Your task to perform on an android device: turn notification dots off Image 0: 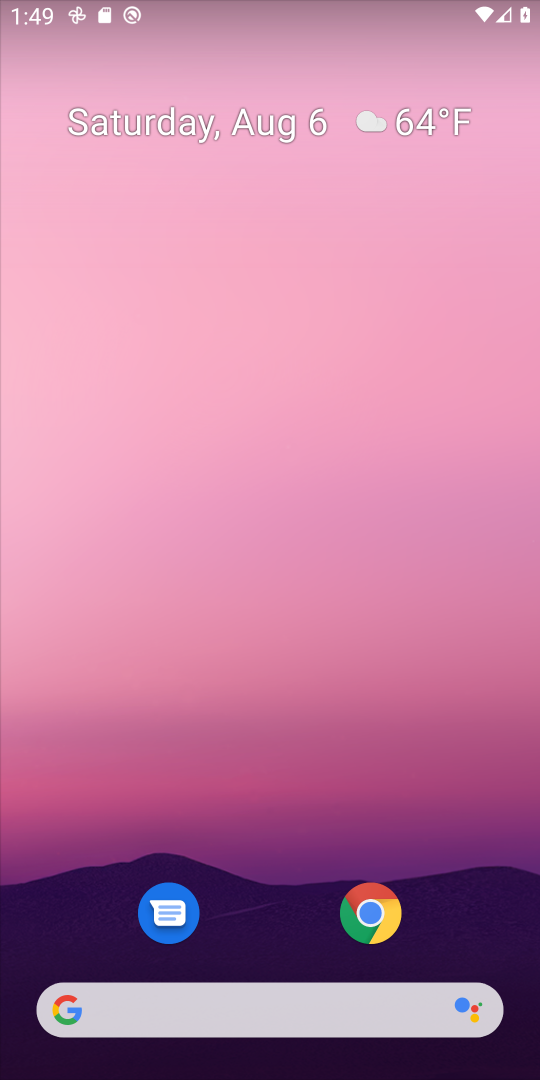
Step 0: press home button
Your task to perform on an android device: turn notification dots off Image 1: 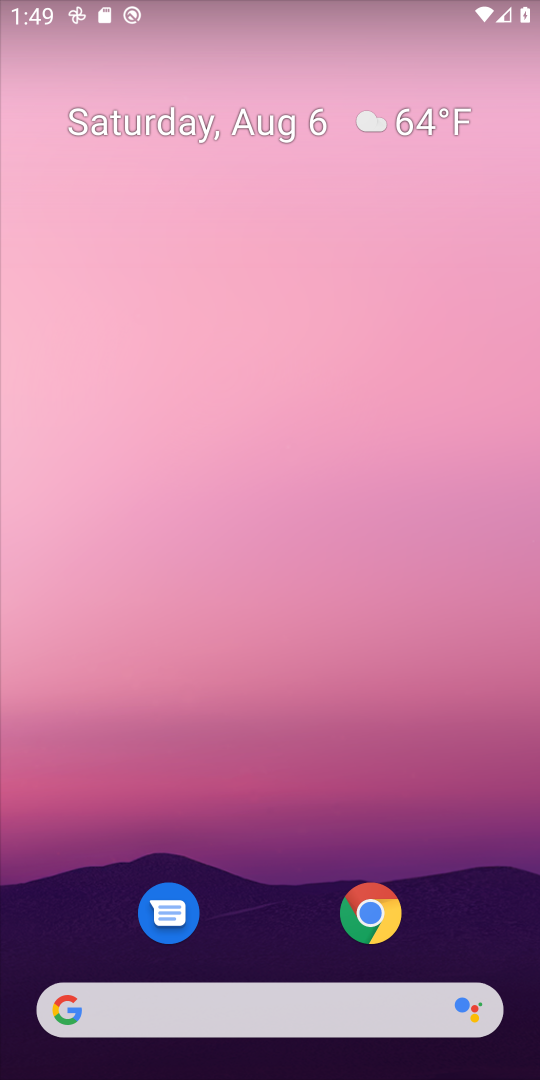
Step 1: drag from (451, 940) to (457, 342)
Your task to perform on an android device: turn notification dots off Image 2: 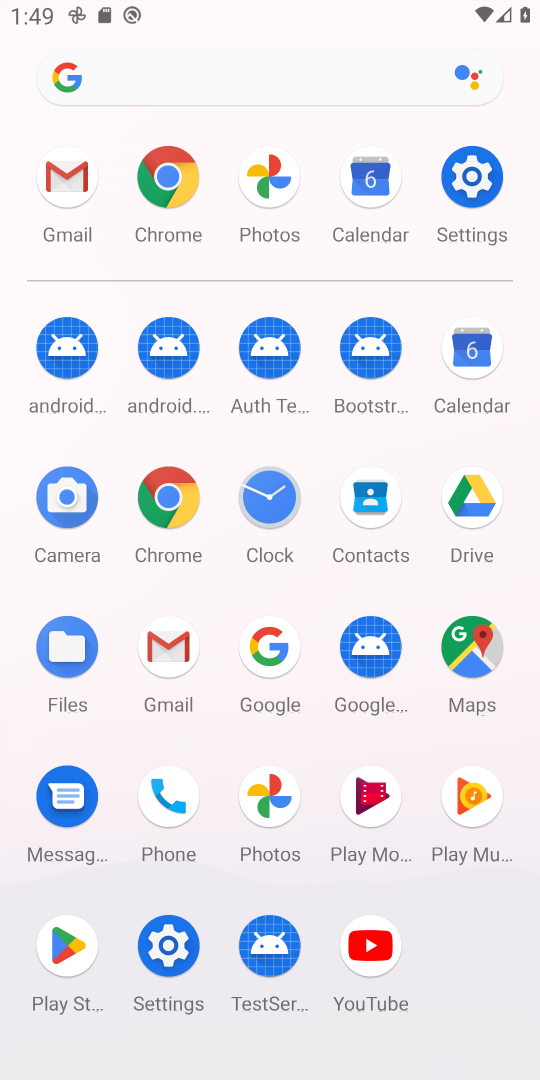
Step 2: click (465, 176)
Your task to perform on an android device: turn notification dots off Image 3: 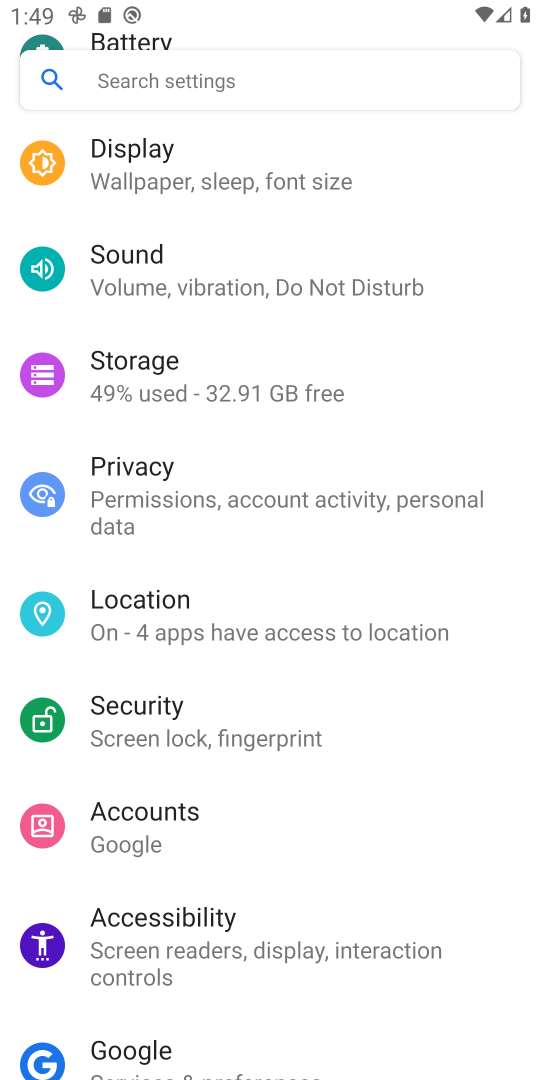
Step 3: drag from (463, 213) to (492, 385)
Your task to perform on an android device: turn notification dots off Image 4: 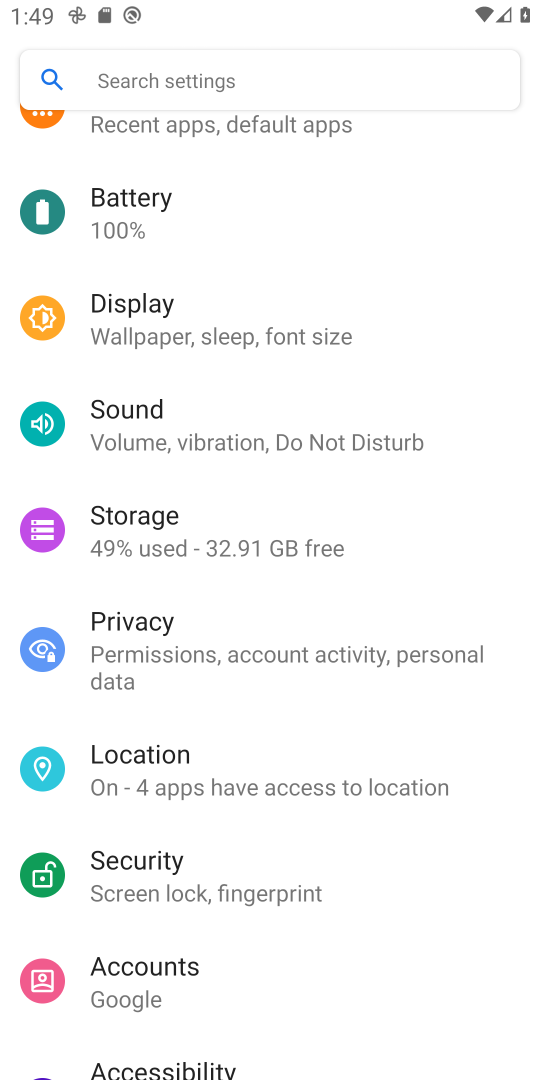
Step 4: drag from (495, 238) to (501, 402)
Your task to perform on an android device: turn notification dots off Image 5: 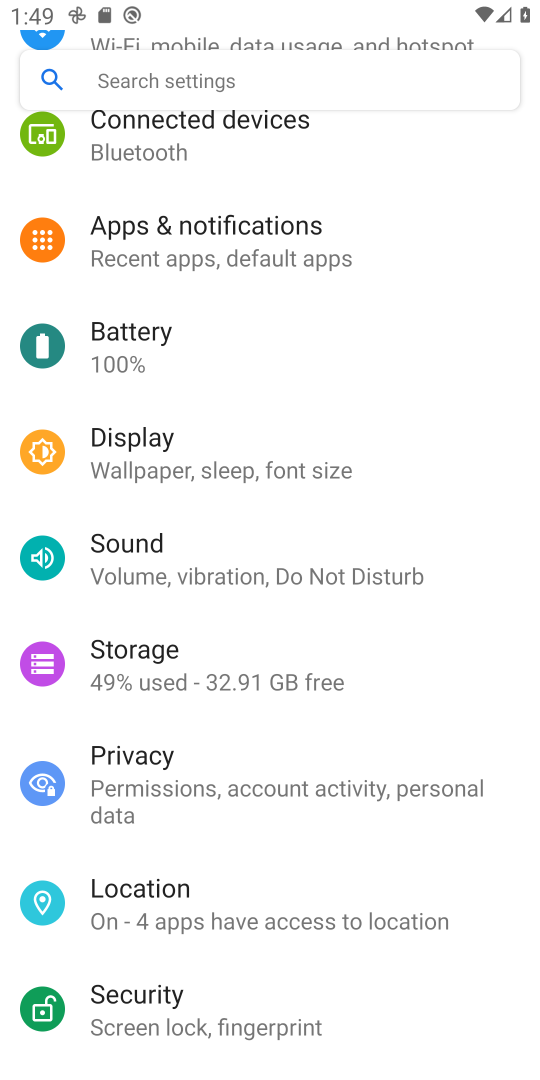
Step 5: drag from (481, 201) to (509, 566)
Your task to perform on an android device: turn notification dots off Image 6: 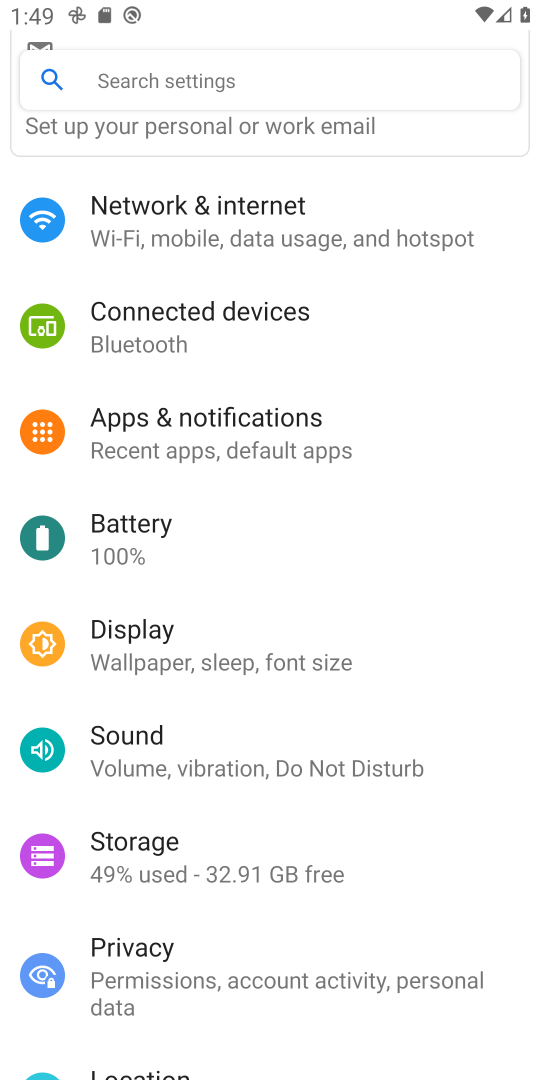
Step 6: drag from (467, 252) to (473, 504)
Your task to perform on an android device: turn notification dots off Image 7: 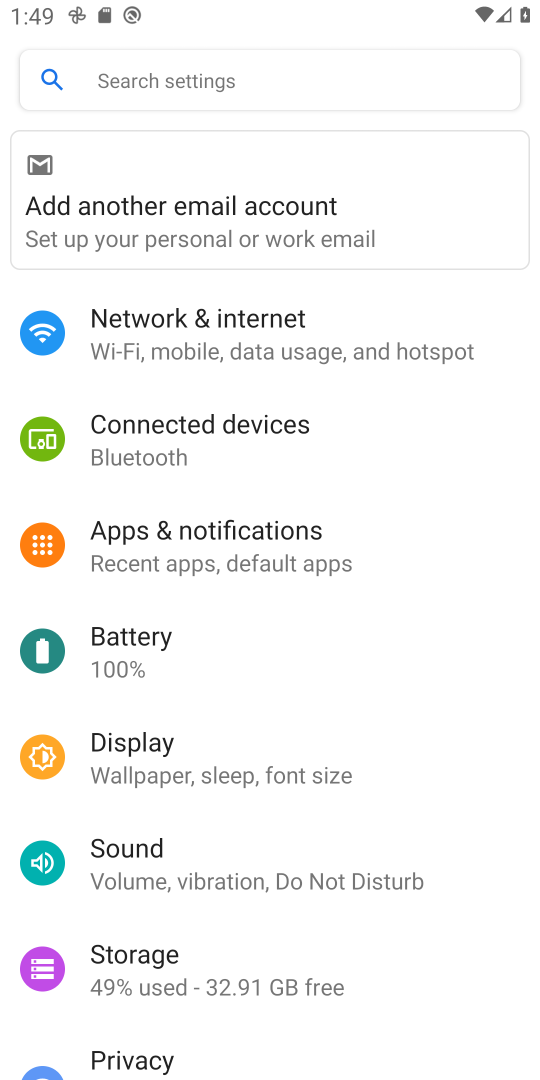
Step 7: drag from (477, 640) to (474, 525)
Your task to perform on an android device: turn notification dots off Image 8: 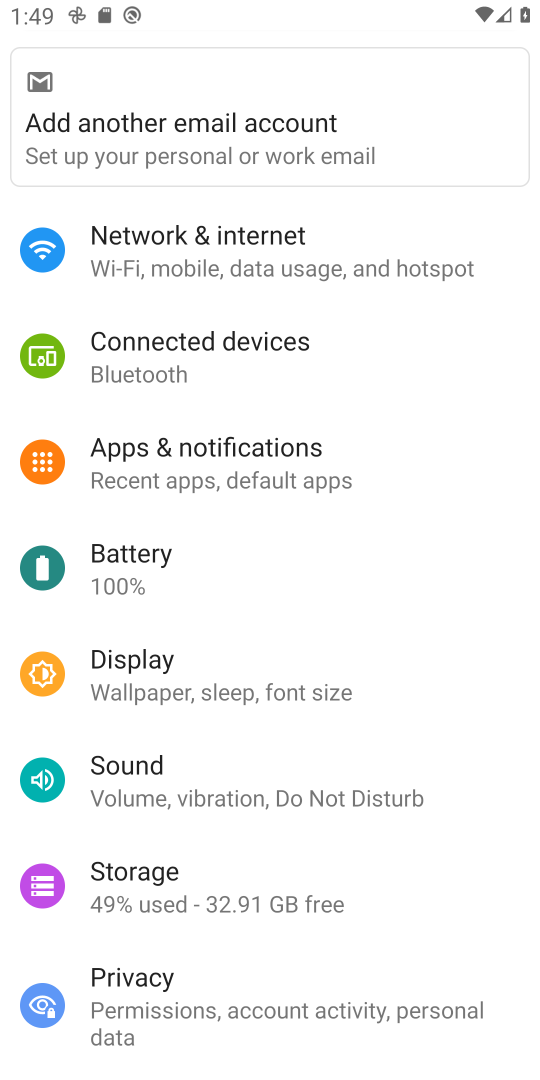
Step 8: drag from (439, 687) to (454, 534)
Your task to perform on an android device: turn notification dots off Image 9: 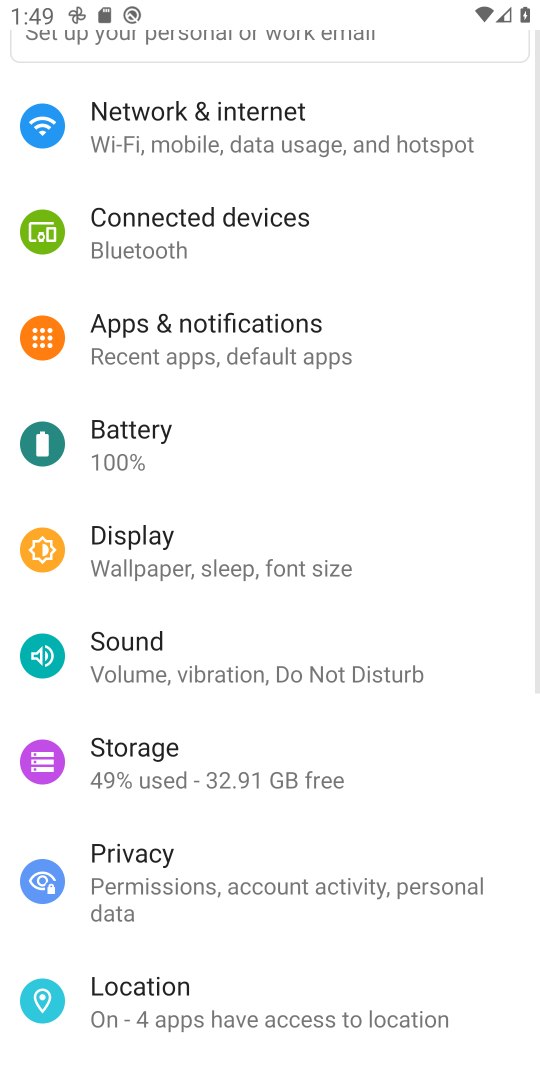
Step 9: drag from (442, 717) to (445, 545)
Your task to perform on an android device: turn notification dots off Image 10: 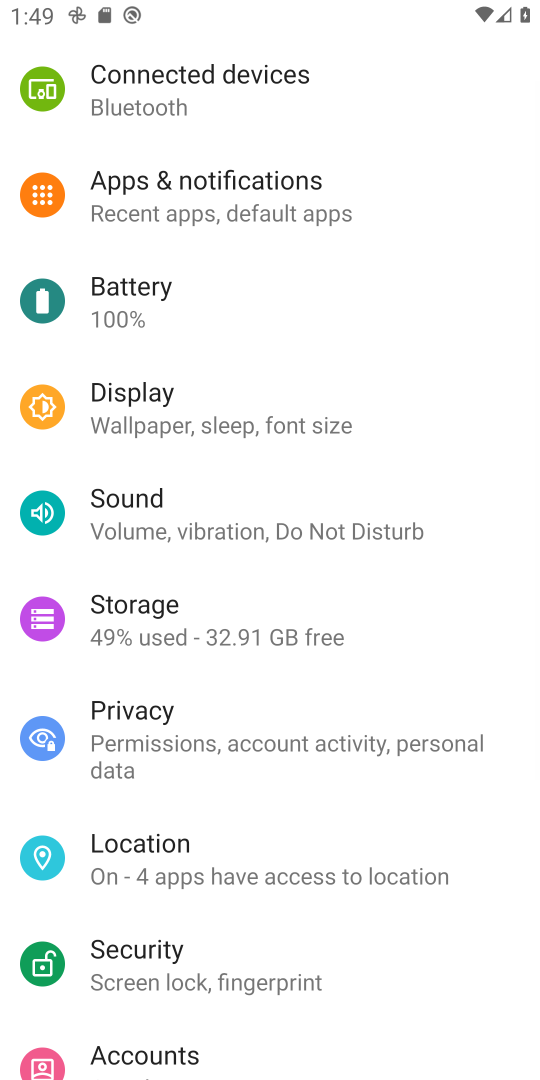
Step 10: drag from (415, 687) to (439, 540)
Your task to perform on an android device: turn notification dots off Image 11: 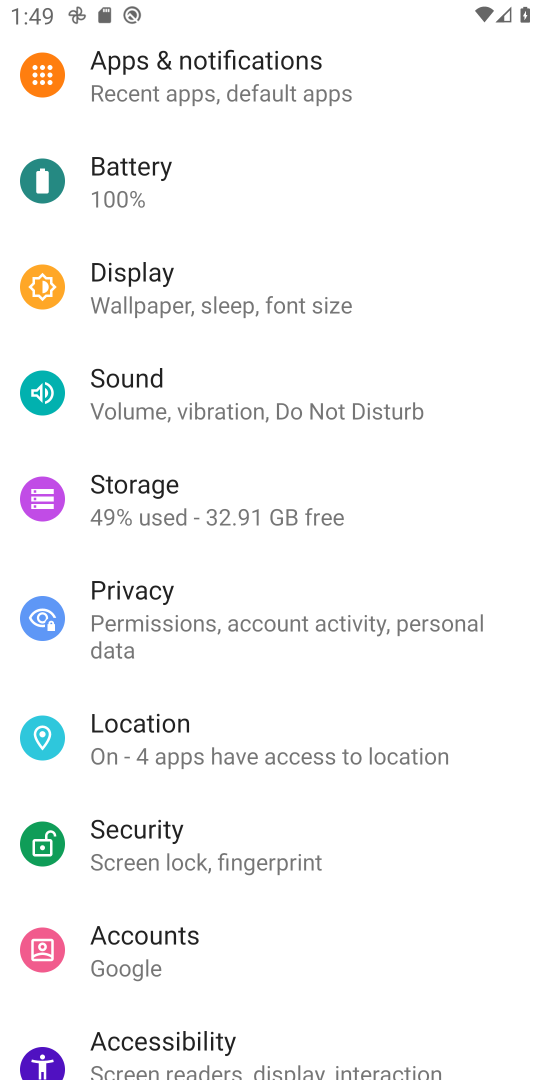
Step 11: drag from (431, 696) to (439, 556)
Your task to perform on an android device: turn notification dots off Image 12: 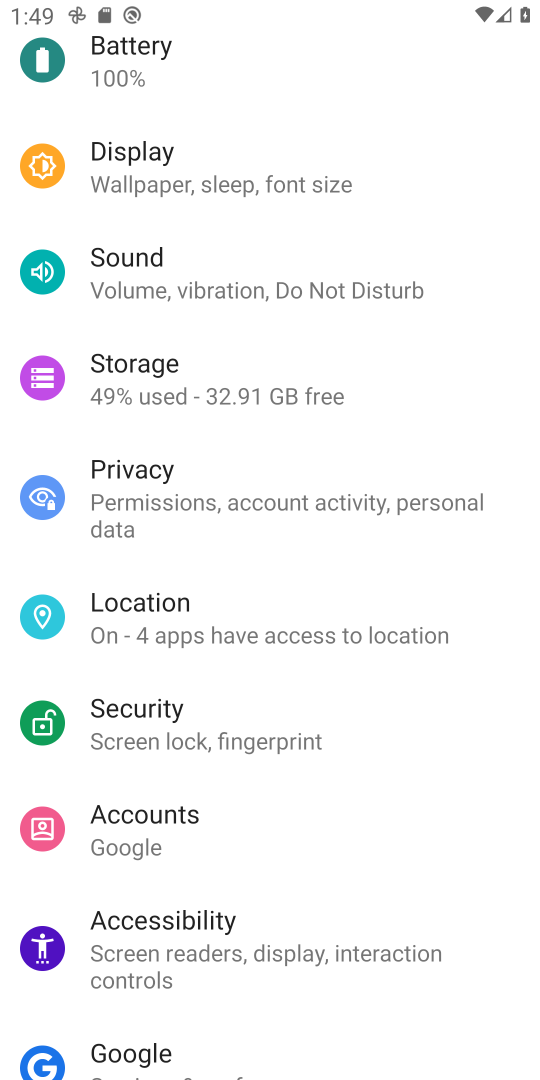
Step 12: drag from (414, 771) to (423, 599)
Your task to perform on an android device: turn notification dots off Image 13: 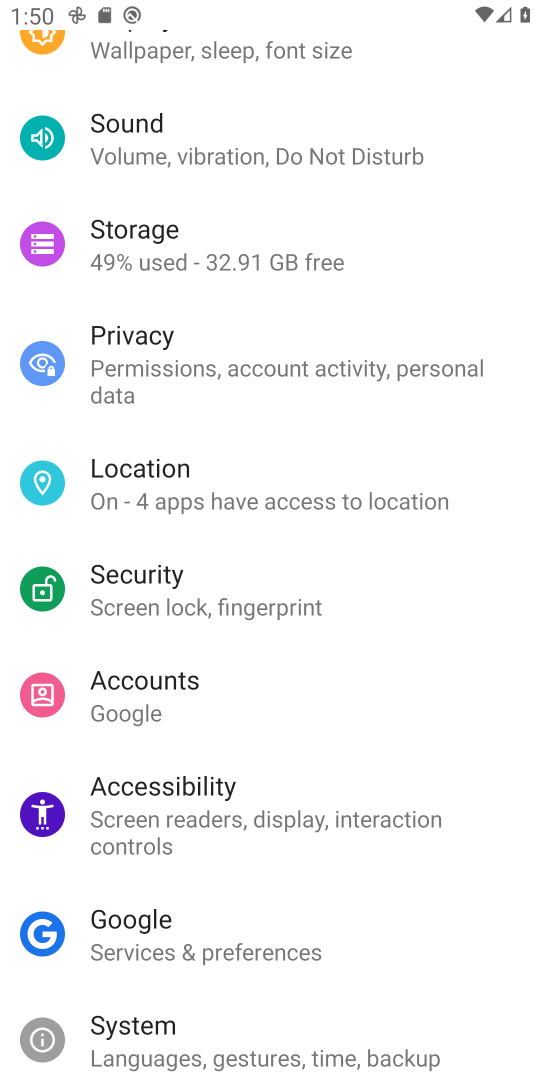
Step 13: drag from (442, 268) to (467, 477)
Your task to perform on an android device: turn notification dots off Image 14: 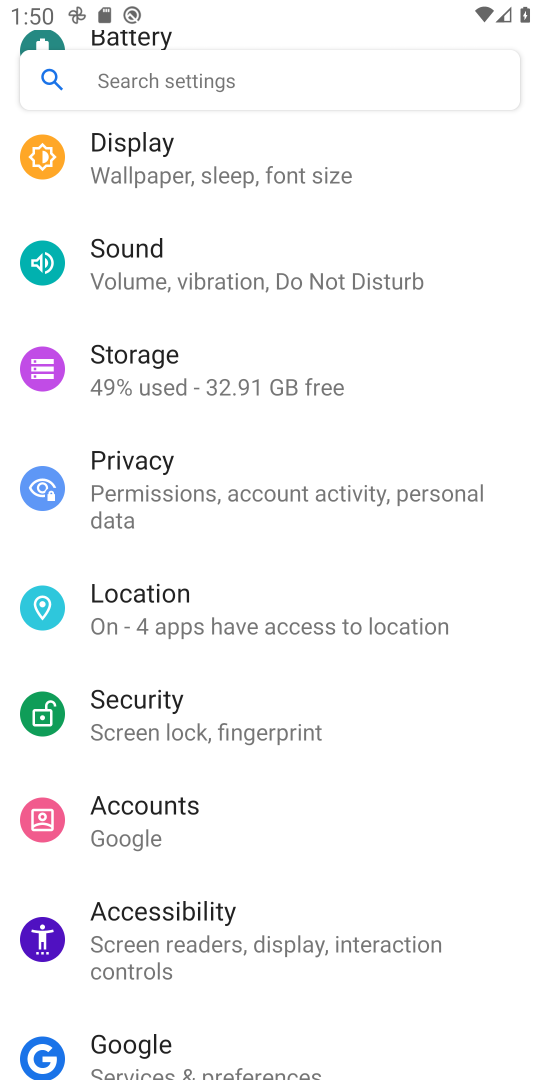
Step 14: drag from (475, 234) to (463, 466)
Your task to perform on an android device: turn notification dots off Image 15: 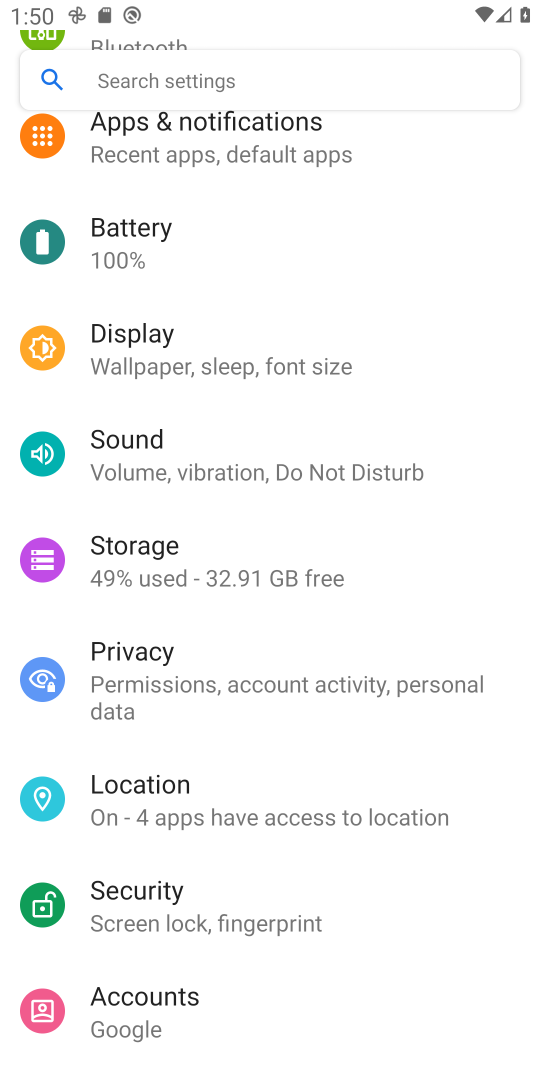
Step 15: drag from (436, 232) to (461, 457)
Your task to perform on an android device: turn notification dots off Image 16: 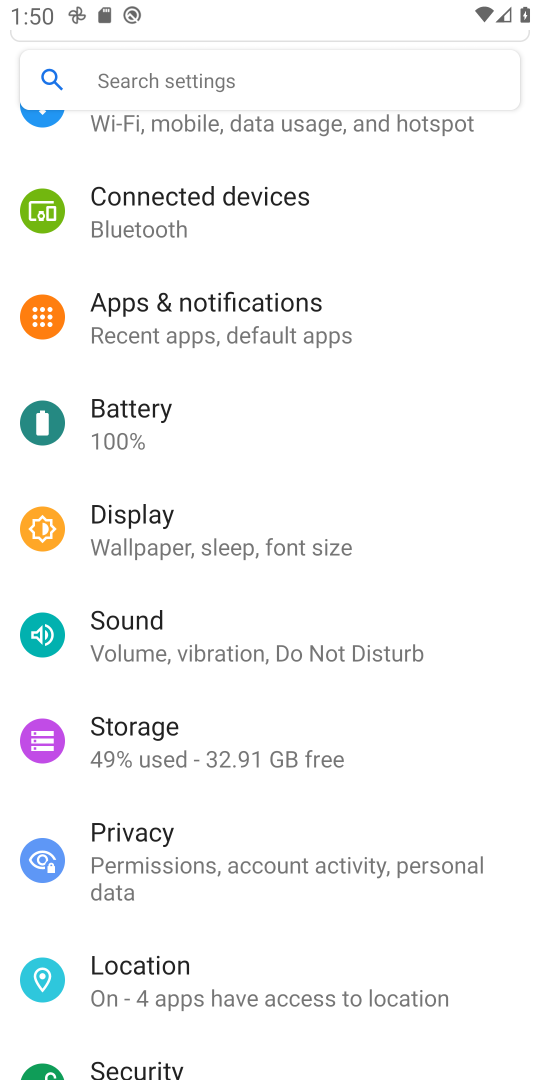
Step 16: drag from (440, 202) to (441, 493)
Your task to perform on an android device: turn notification dots off Image 17: 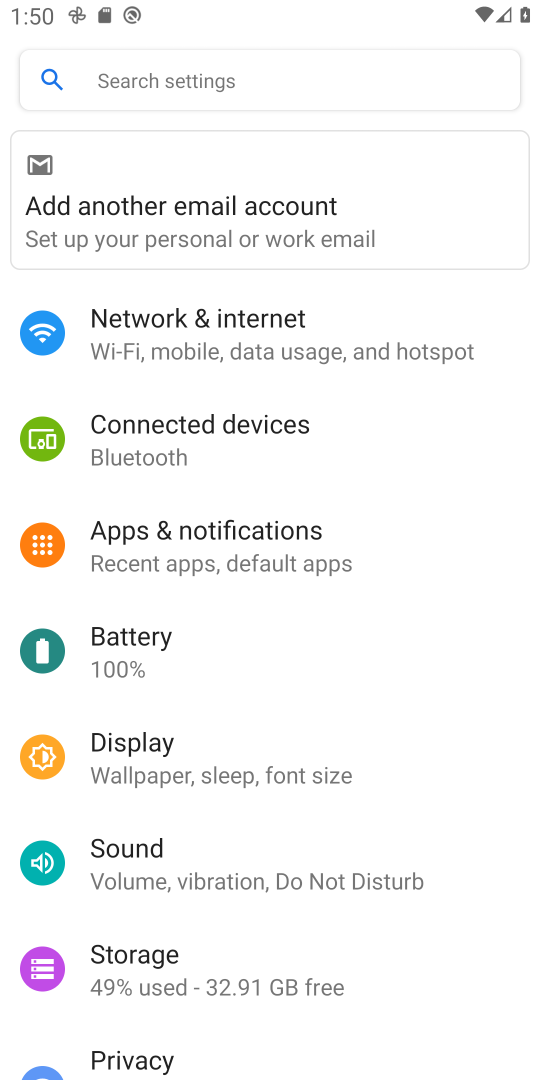
Step 17: click (378, 543)
Your task to perform on an android device: turn notification dots off Image 18: 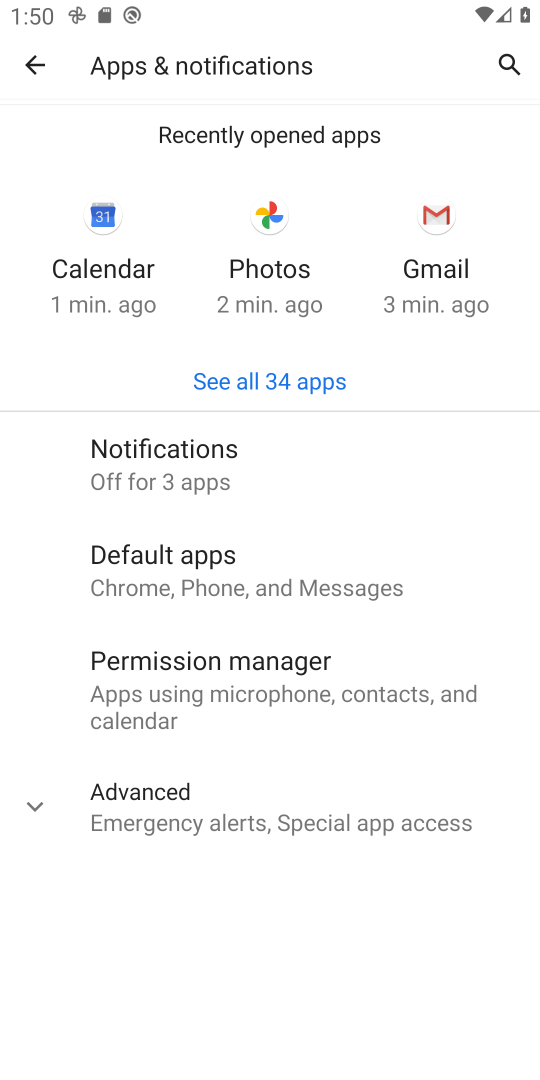
Step 18: click (240, 466)
Your task to perform on an android device: turn notification dots off Image 19: 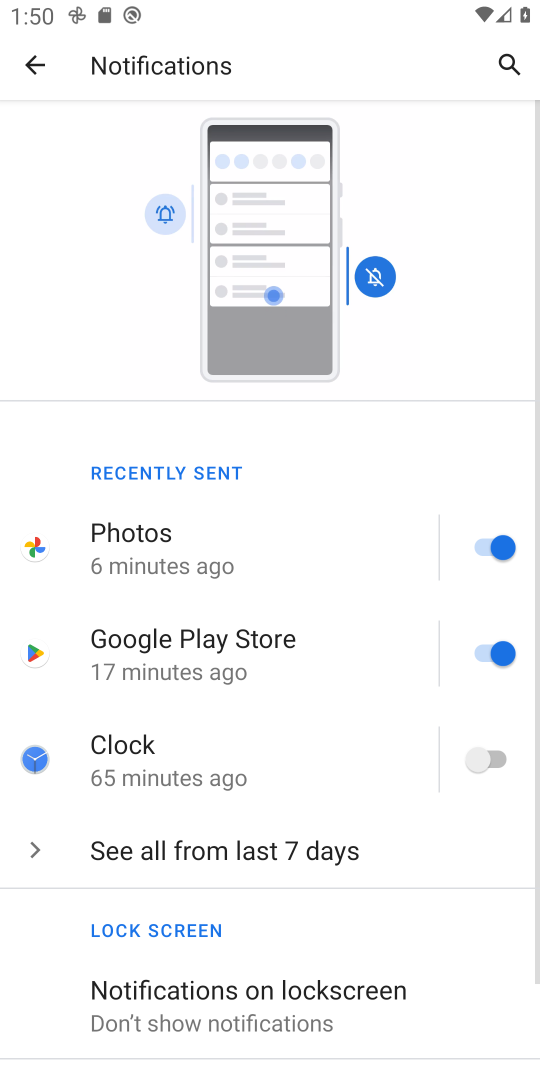
Step 19: drag from (356, 638) to (379, 480)
Your task to perform on an android device: turn notification dots off Image 20: 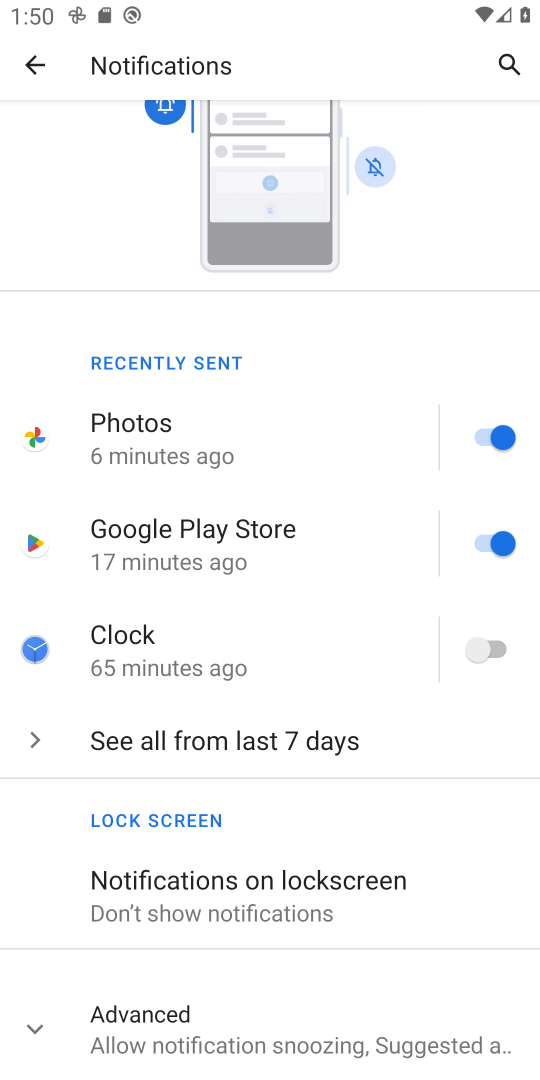
Step 20: drag from (358, 695) to (369, 536)
Your task to perform on an android device: turn notification dots off Image 21: 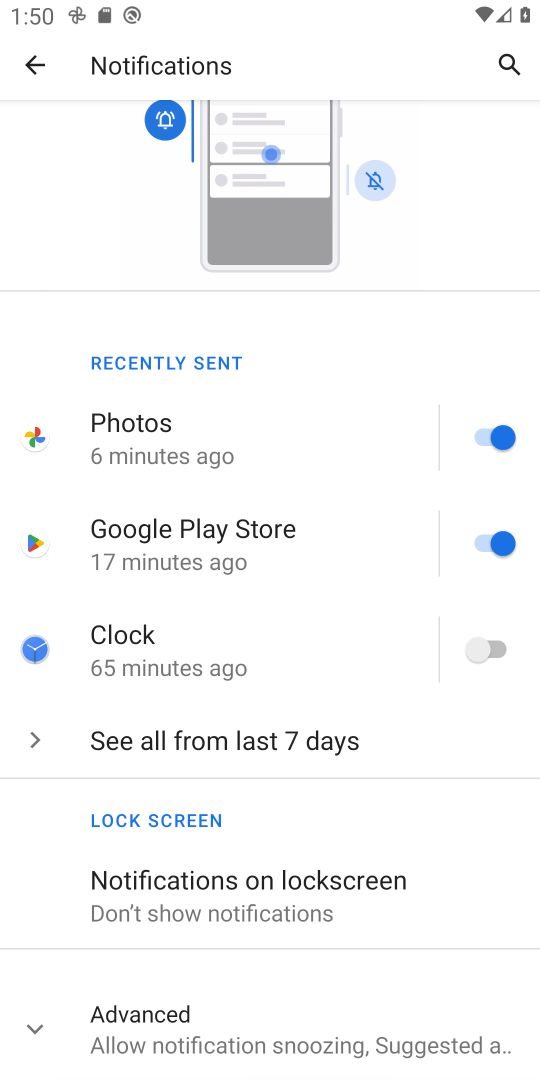
Step 21: click (406, 1034)
Your task to perform on an android device: turn notification dots off Image 22: 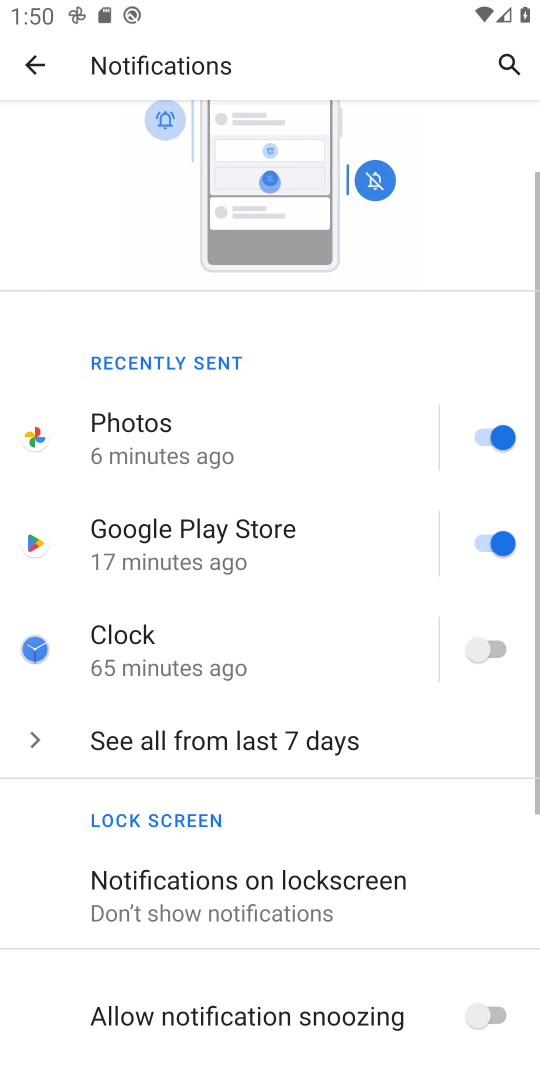
Step 22: drag from (416, 897) to (412, 683)
Your task to perform on an android device: turn notification dots off Image 23: 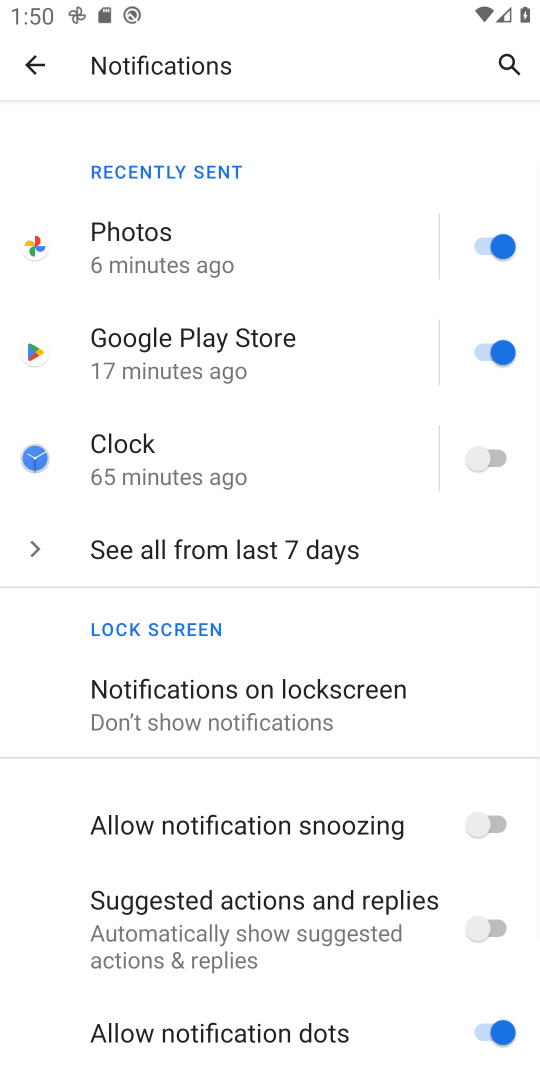
Step 23: drag from (350, 904) to (354, 665)
Your task to perform on an android device: turn notification dots off Image 24: 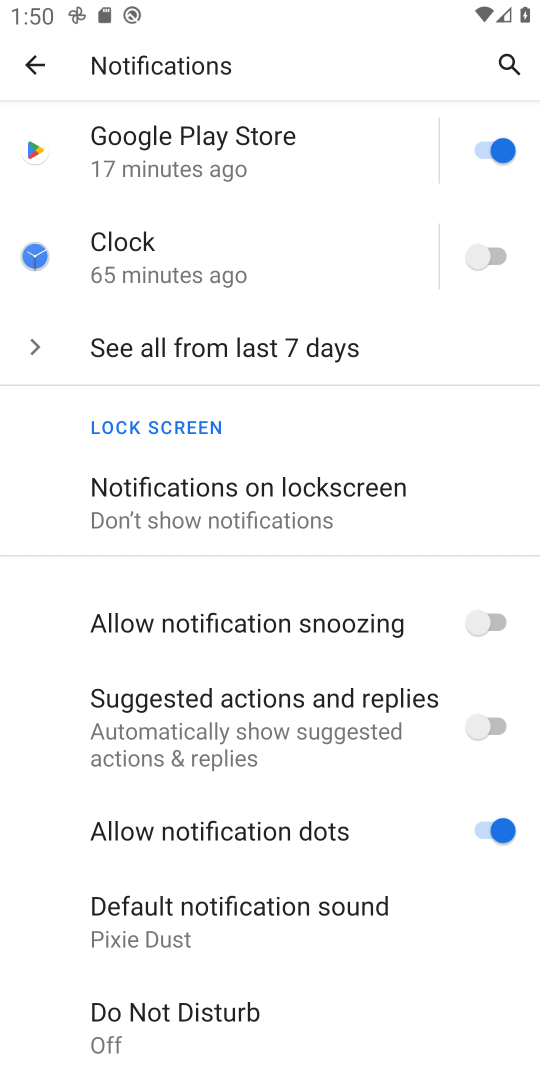
Step 24: drag from (403, 906) to (411, 735)
Your task to perform on an android device: turn notification dots off Image 25: 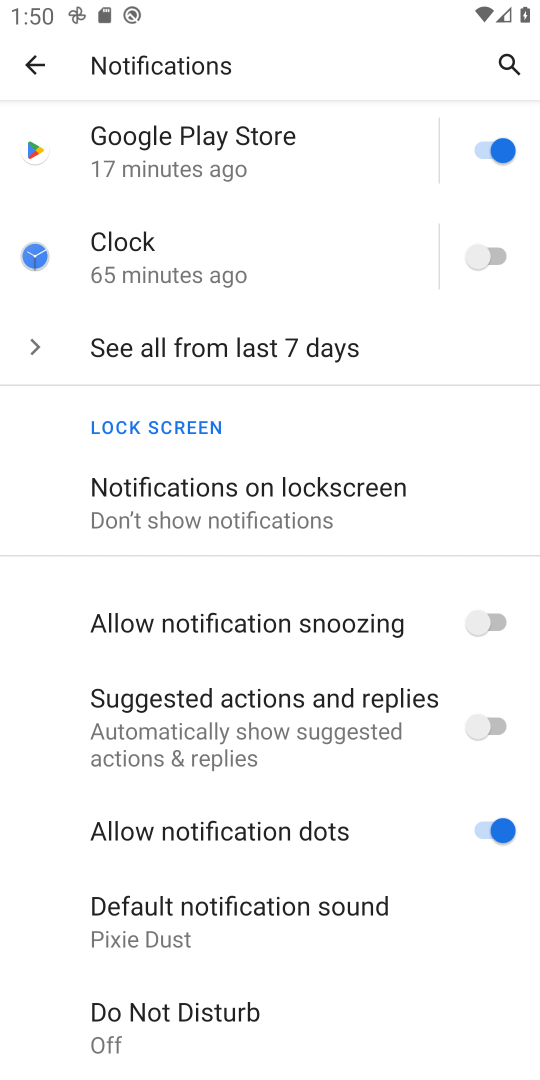
Step 25: click (489, 835)
Your task to perform on an android device: turn notification dots off Image 26: 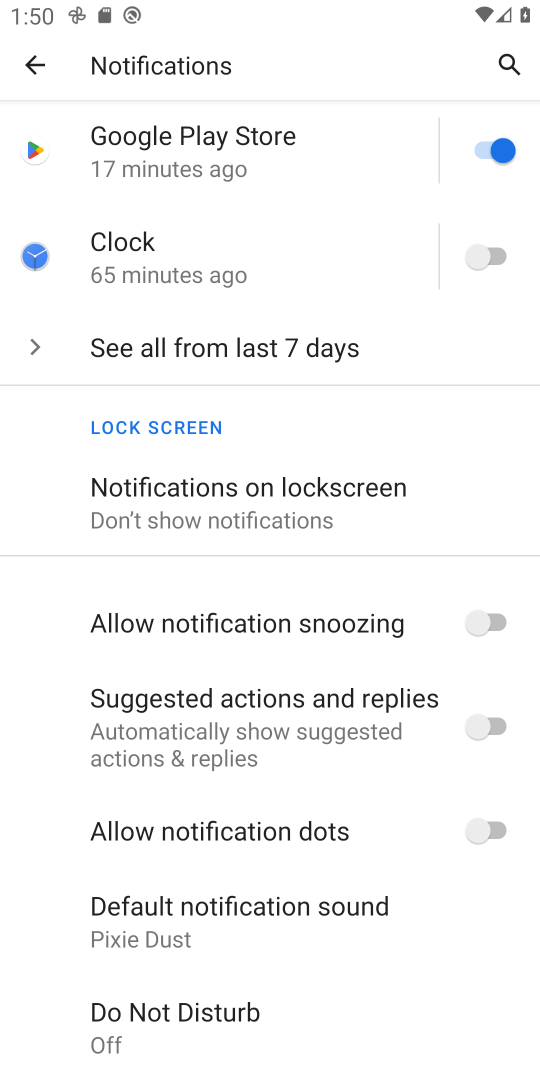
Step 26: task complete